Your task to perform on an android device: Open settings Image 0: 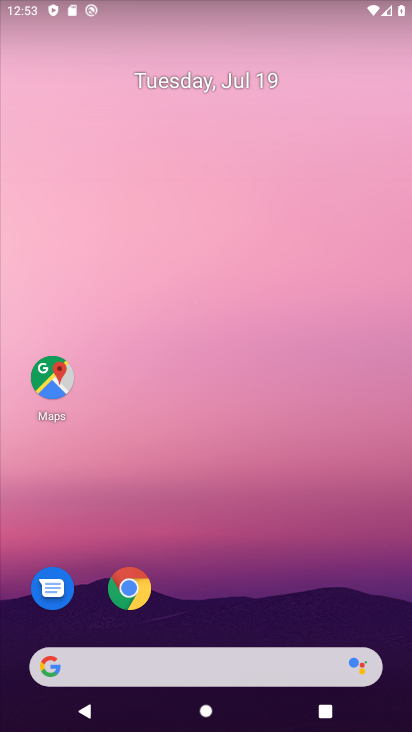
Step 0: drag from (340, 602) to (247, 131)
Your task to perform on an android device: Open settings Image 1: 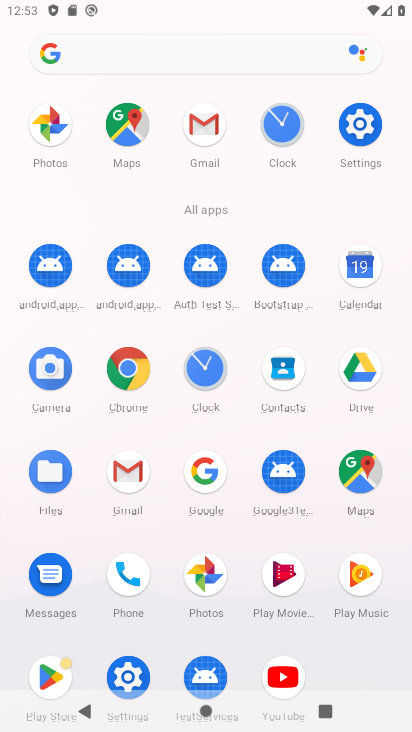
Step 1: click (351, 134)
Your task to perform on an android device: Open settings Image 2: 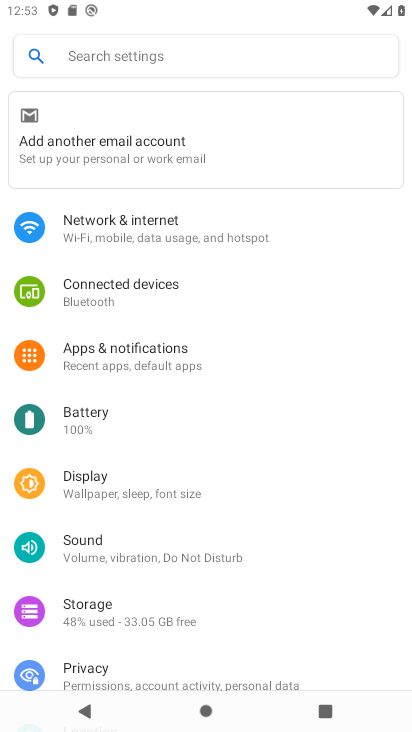
Step 2: task complete